Your task to perform on an android device: turn off javascript in the chrome app Image 0: 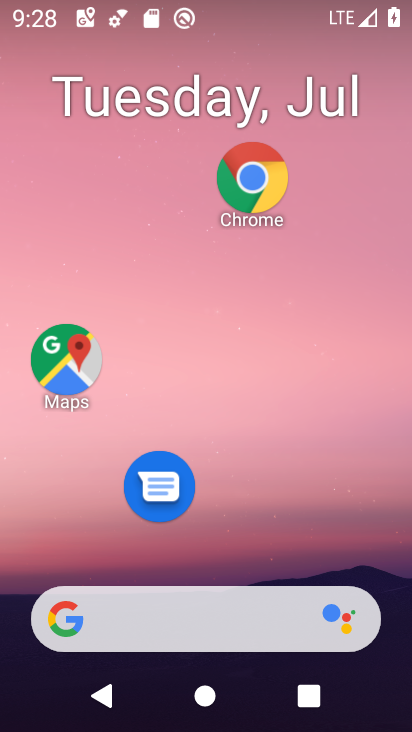
Step 0: drag from (283, 596) to (310, 243)
Your task to perform on an android device: turn off javascript in the chrome app Image 1: 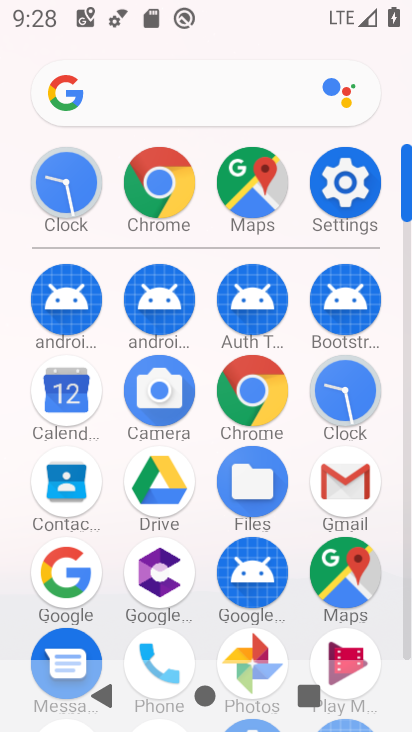
Step 1: click (137, 195)
Your task to perform on an android device: turn off javascript in the chrome app Image 2: 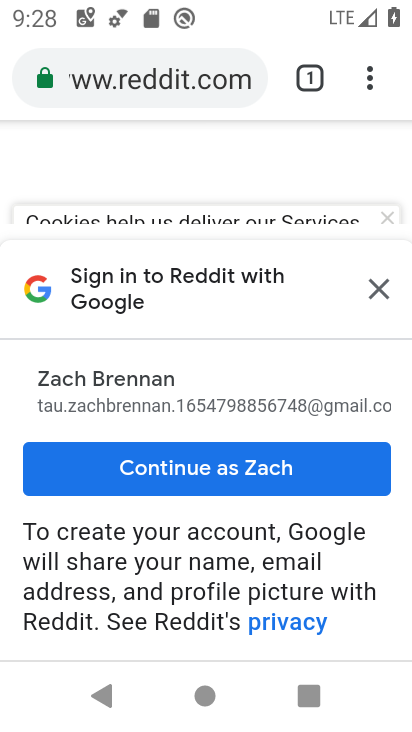
Step 2: click (361, 83)
Your task to perform on an android device: turn off javascript in the chrome app Image 3: 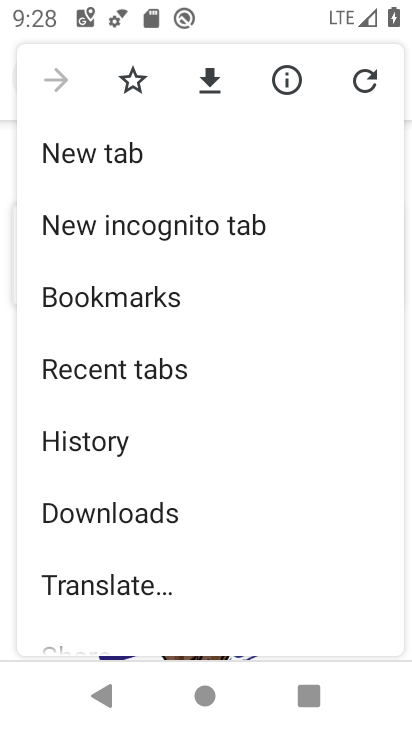
Step 3: drag from (148, 438) to (218, 112)
Your task to perform on an android device: turn off javascript in the chrome app Image 4: 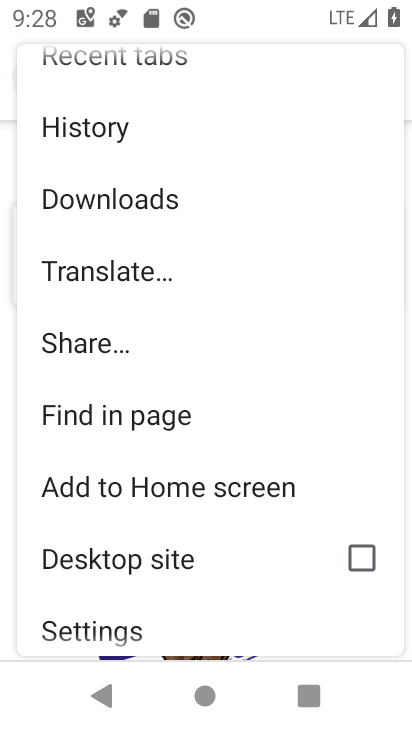
Step 4: drag from (186, 513) to (220, 161)
Your task to perform on an android device: turn off javascript in the chrome app Image 5: 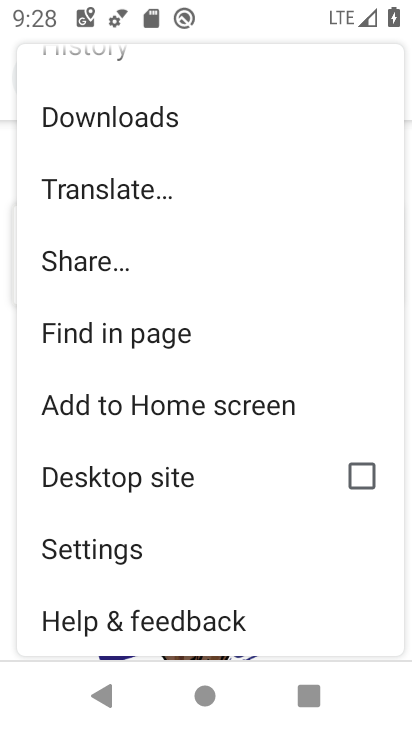
Step 5: click (114, 552)
Your task to perform on an android device: turn off javascript in the chrome app Image 6: 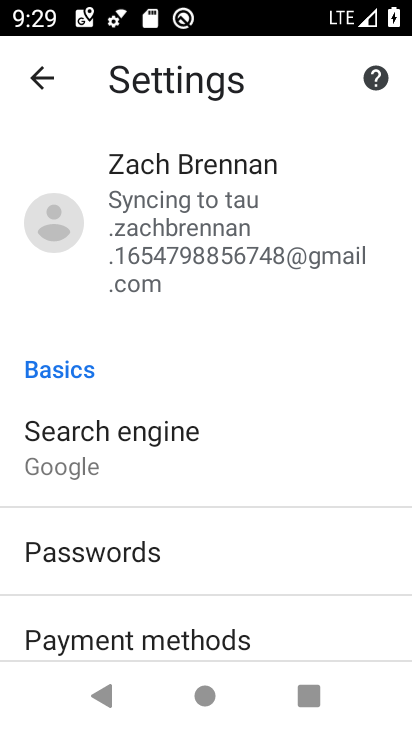
Step 6: drag from (163, 601) to (172, 271)
Your task to perform on an android device: turn off javascript in the chrome app Image 7: 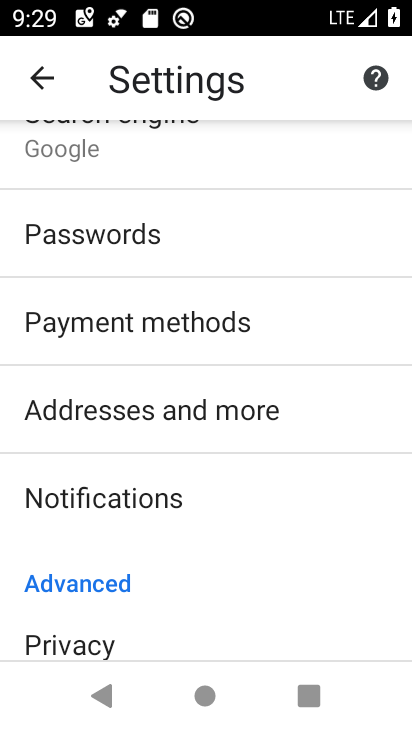
Step 7: drag from (220, 573) to (197, 331)
Your task to perform on an android device: turn off javascript in the chrome app Image 8: 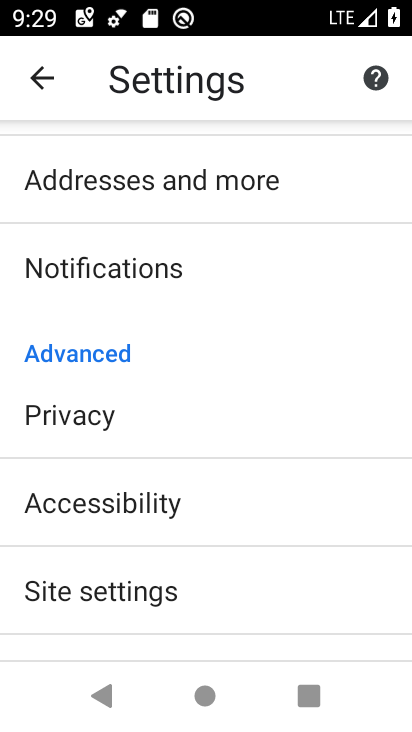
Step 8: click (125, 601)
Your task to perform on an android device: turn off javascript in the chrome app Image 9: 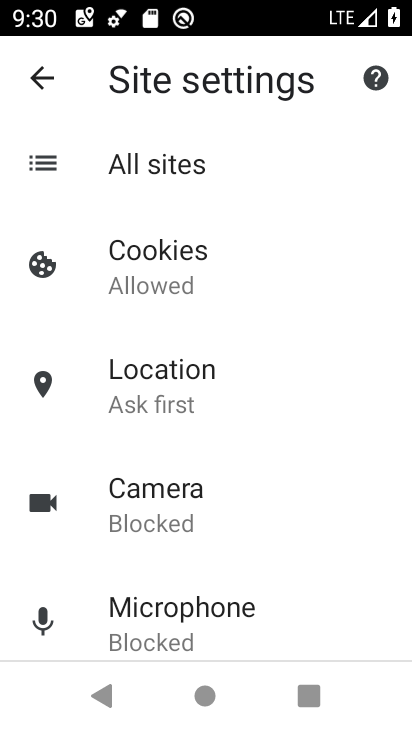
Step 9: drag from (142, 529) to (221, 0)
Your task to perform on an android device: turn off javascript in the chrome app Image 10: 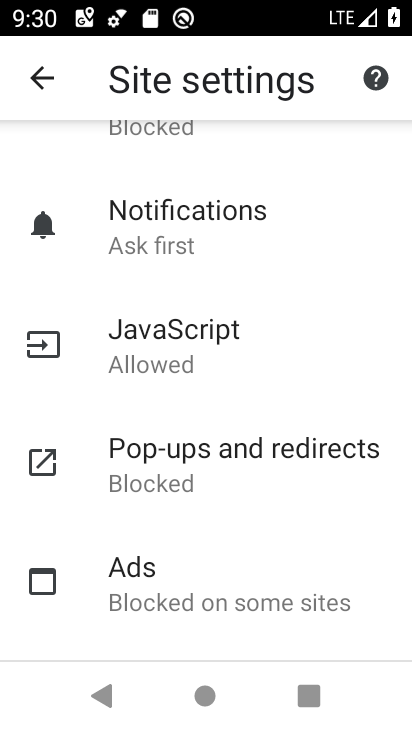
Step 10: click (195, 521)
Your task to perform on an android device: turn off javascript in the chrome app Image 11: 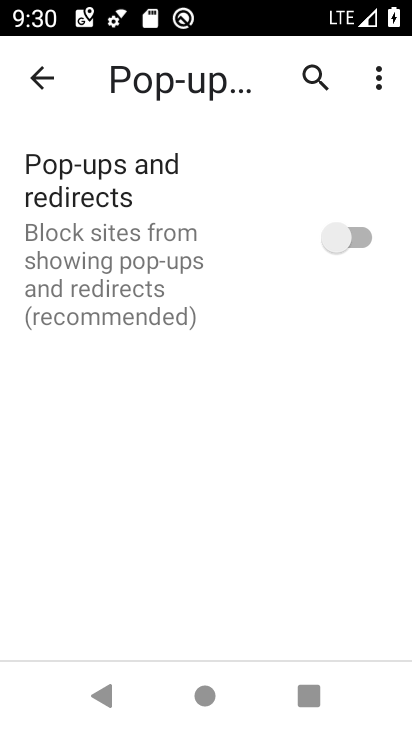
Step 11: task complete